Your task to perform on an android device: Open the map Image 0: 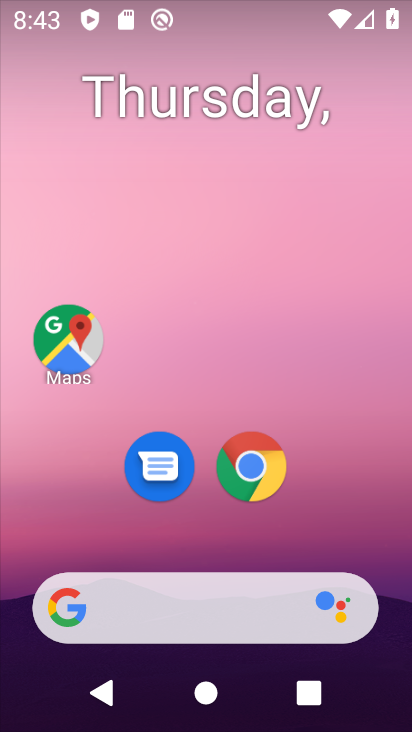
Step 0: press home button
Your task to perform on an android device: Open the map Image 1: 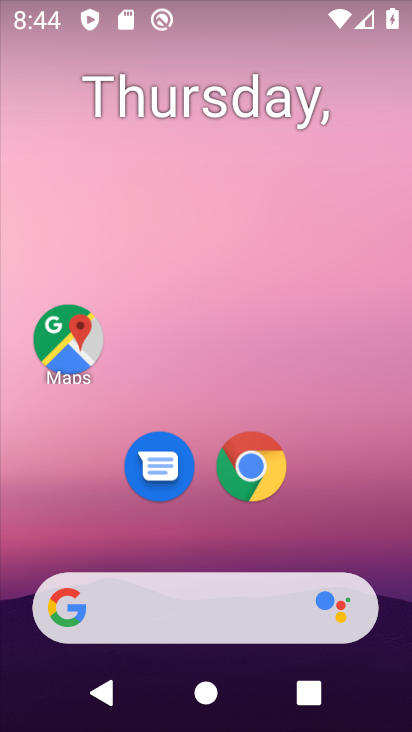
Step 1: click (70, 344)
Your task to perform on an android device: Open the map Image 2: 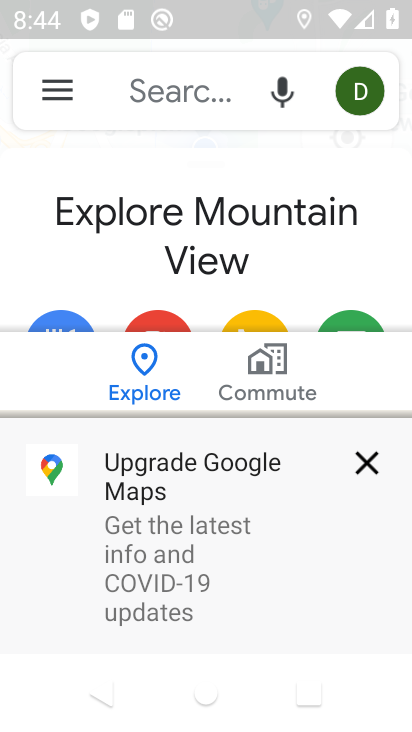
Step 2: drag from (206, 311) to (307, 136)
Your task to perform on an android device: Open the map Image 3: 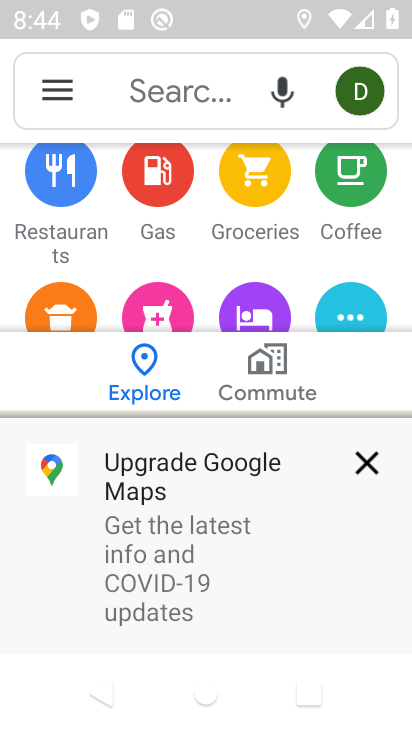
Step 3: click (364, 465)
Your task to perform on an android device: Open the map Image 4: 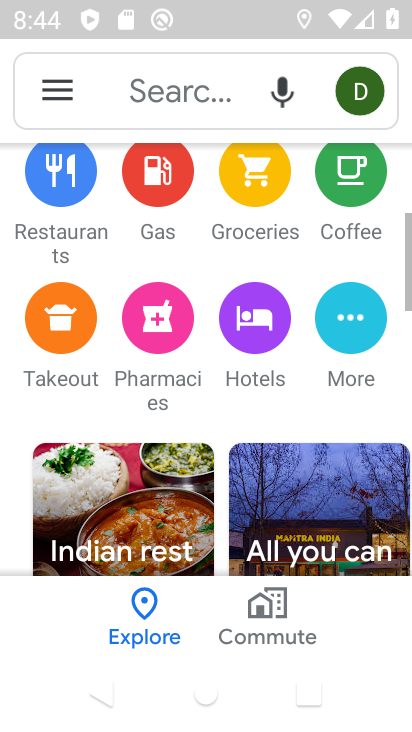
Step 4: task complete